Your task to perform on an android device: Open notification settings Image 0: 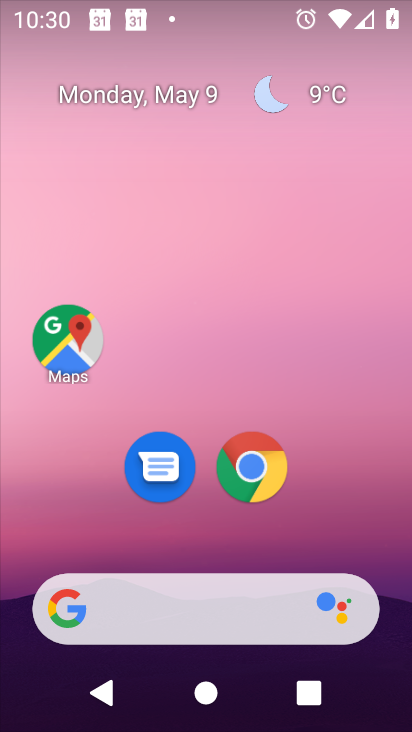
Step 0: drag from (377, 578) to (328, 1)
Your task to perform on an android device: Open notification settings Image 1: 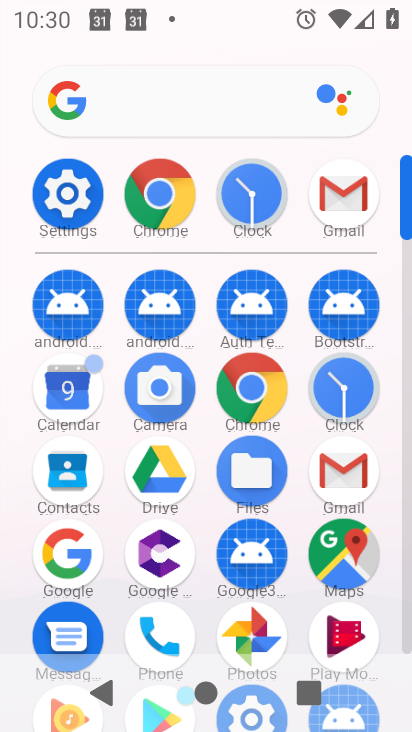
Step 1: click (70, 198)
Your task to perform on an android device: Open notification settings Image 2: 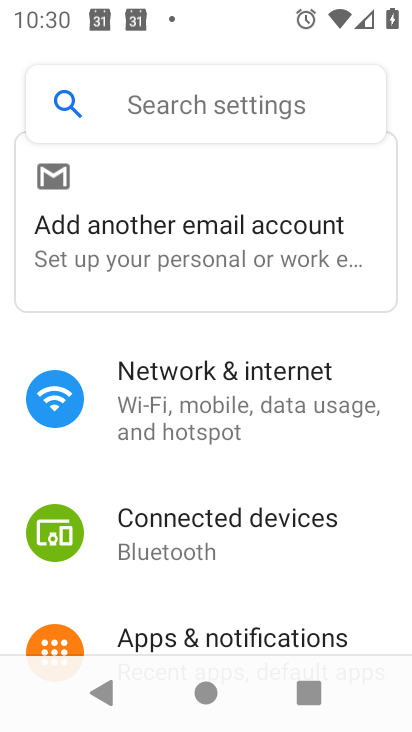
Step 2: click (310, 640)
Your task to perform on an android device: Open notification settings Image 3: 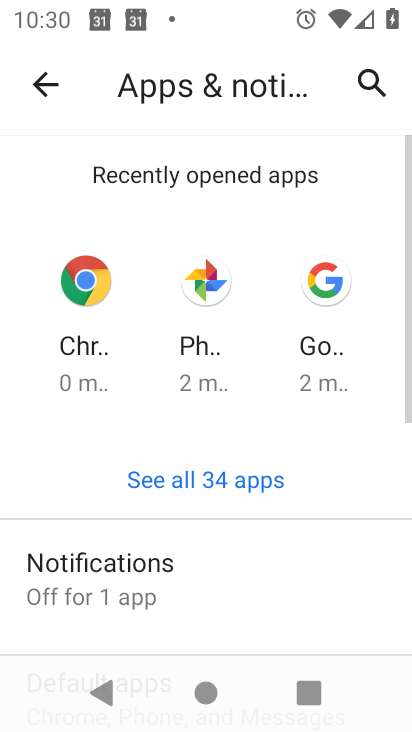
Step 3: task complete